Your task to perform on an android device: Open Google Chrome and open the bookmarks view Image 0: 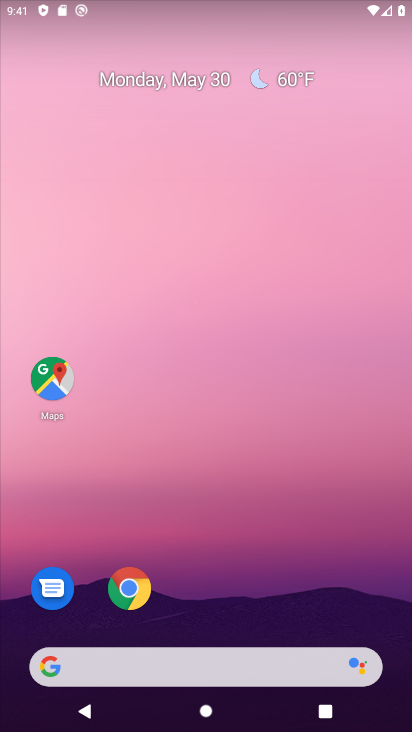
Step 0: click (140, 581)
Your task to perform on an android device: Open Google Chrome and open the bookmarks view Image 1: 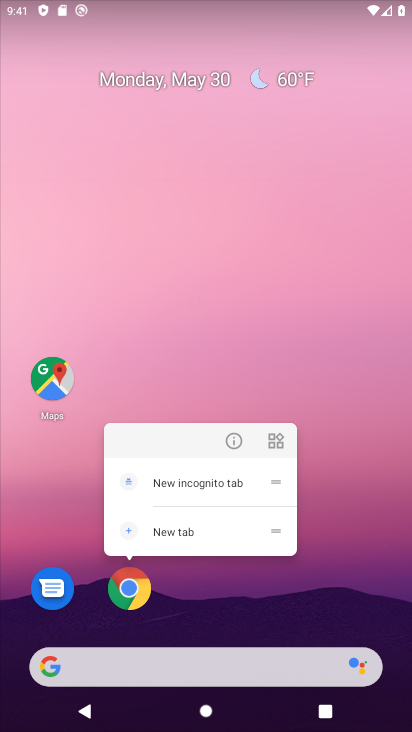
Step 1: click (146, 593)
Your task to perform on an android device: Open Google Chrome and open the bookmarks view Image 2: 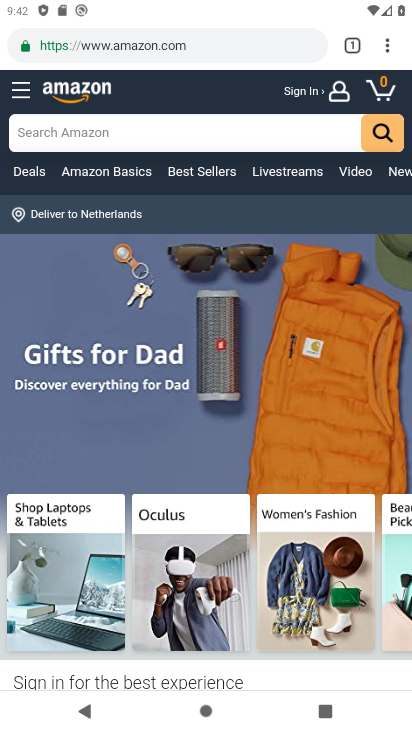
Step 2: click (385, 41)
Your task to perform on an android device: Open Google Chrome and open the bookmarks view Image 3: 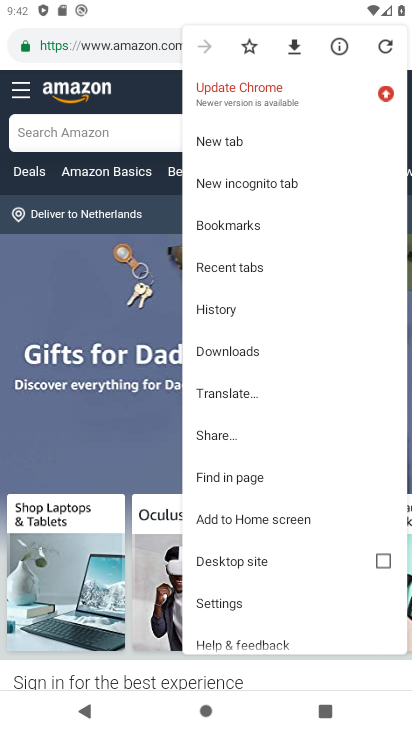
Step 3: click (258, 225)
Your task to perform on an android device: Open Google Chrome and open the bookmarks view Image 4: 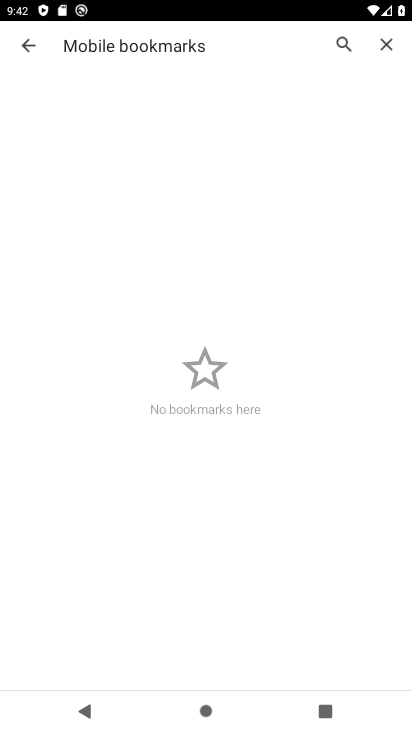
Step 4: task complete